Your task to perform on an android device: Open notification settings Image 0: 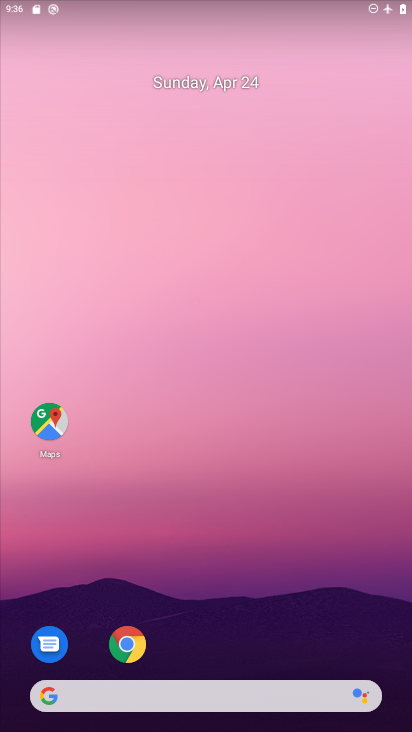
Step 0: drag from (208, 677) to (133, 175)
Your task to perform on an android device: Open notification settings Image 1: 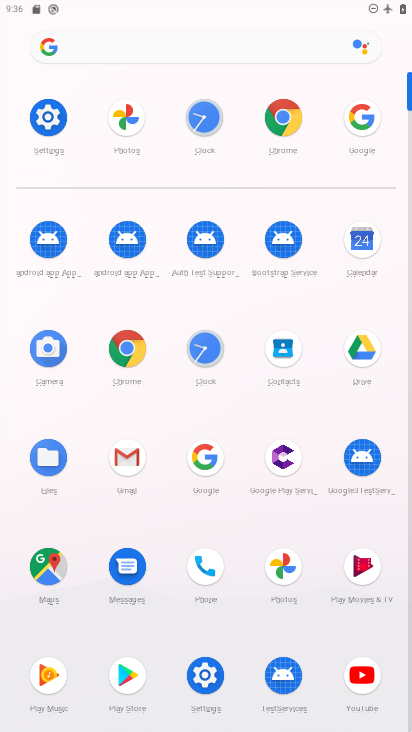
Step 1: click (213, 672)
Your task to perform on an android device: Open notification settings Image 2: 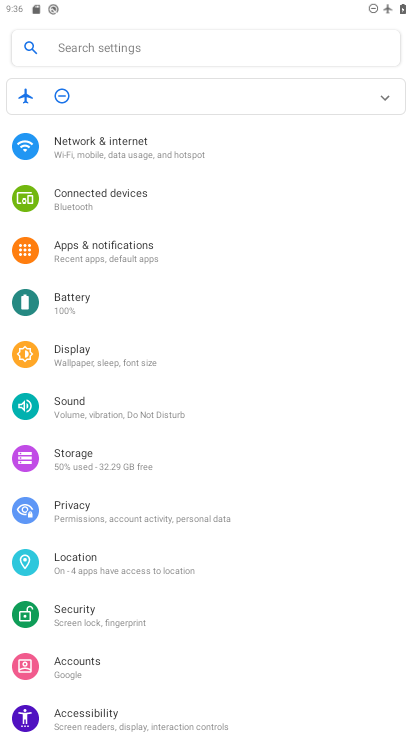
Step 2: click (85, 259)
Your task to perform on an android device: Open notification settings Image 3: 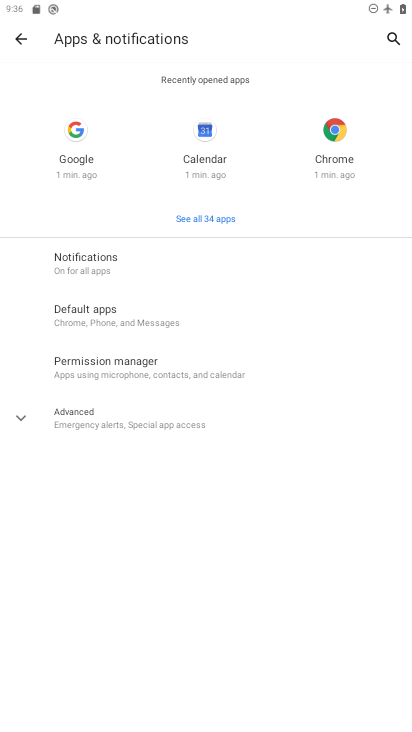
Step 3: click (90, 256)
Your task to perform on an android device: Open notification settings Image 4: 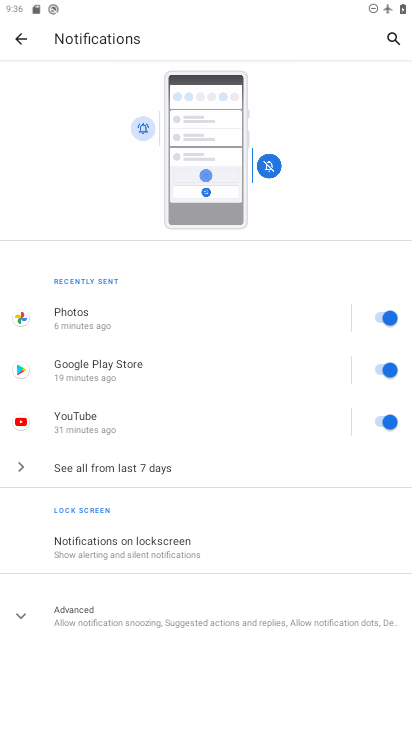
Step 4: task complete